Your task to perform on an android device: open chrome privacy settings Image 0: 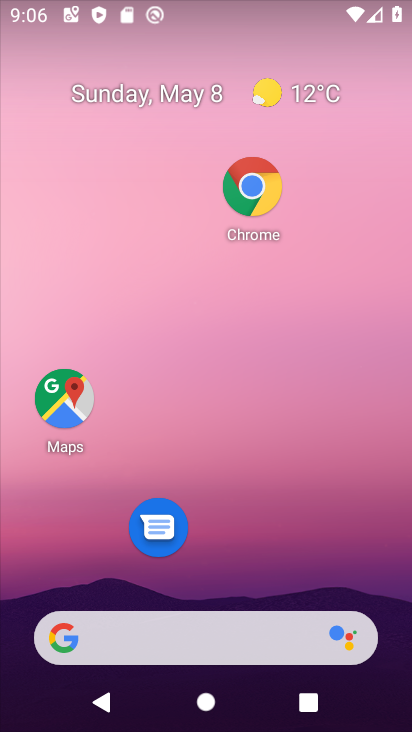
Step 0: drag from (249, 531) to (291, 221)
Your task to perform on an android device: open chrome privacy settings Image 1: 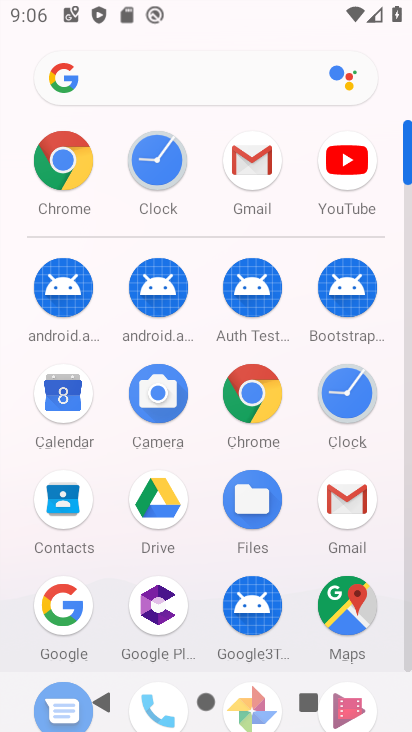
Step 1: click (239, 409)
Your task to perform on an android device: open chrome privacy settings Image 2: 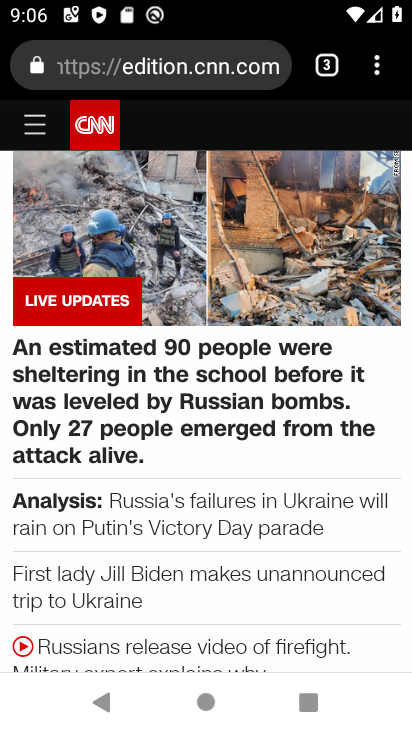
Step 2: click (361, 65)
Your task to perform on an android device: open chrome privacy settings Image 3: 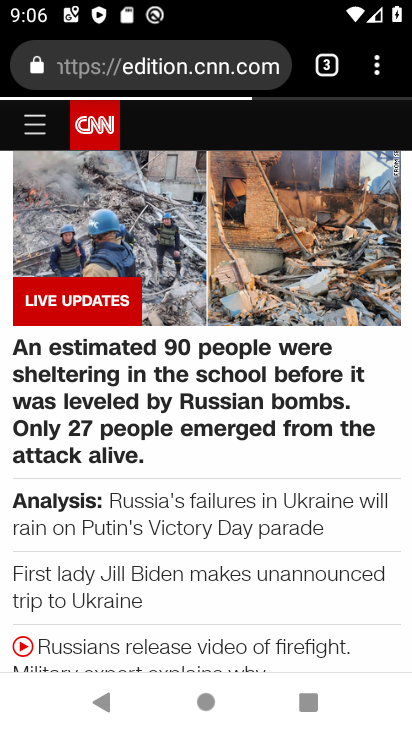
Step 3: click (369, 67)
Your task to perform on an android device: open chrome privacy settings Image 4: 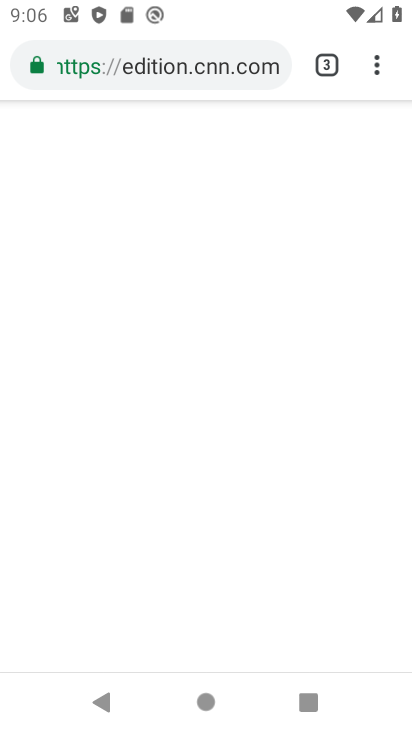
Step 4: click (360, 64)
Your task to perform on an android device: open chrome privacy settings Image 5: 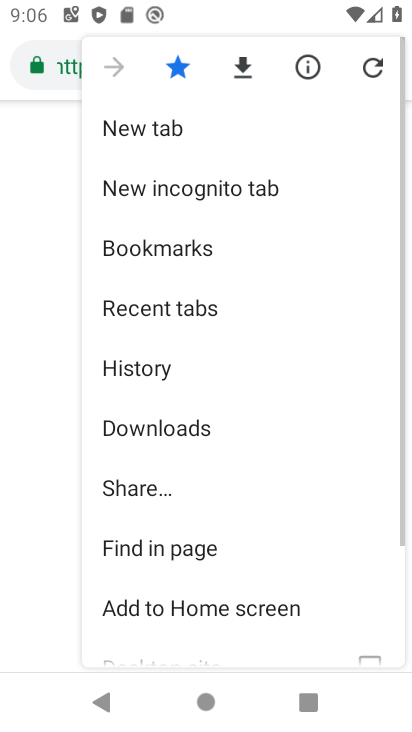
Step 5: drag from (182, 545) to (210, 174)
Your task to perform on an android device: open chrome privacy settings Image 6: 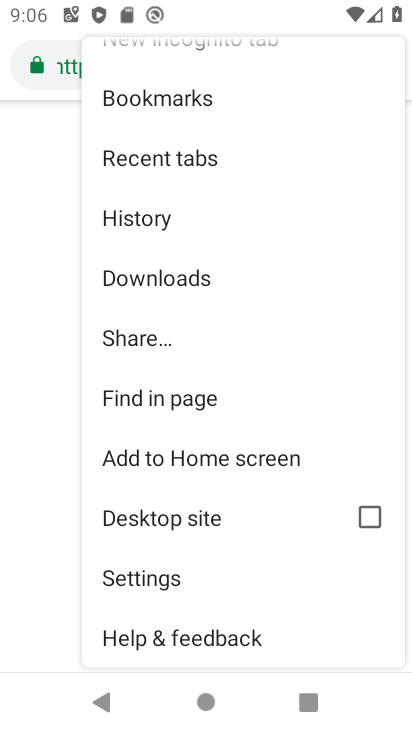
Step 6: click (158, 577)
Your task to perform on an android device: open chrome privacy settings Image 7: 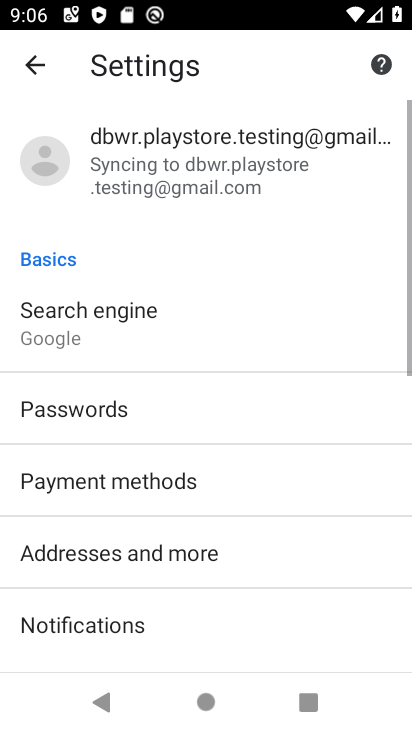
Step 7: drag from (152, 591) to (206, 226)
Your task to perform on an android device: open chrome privacy settings Image 8: 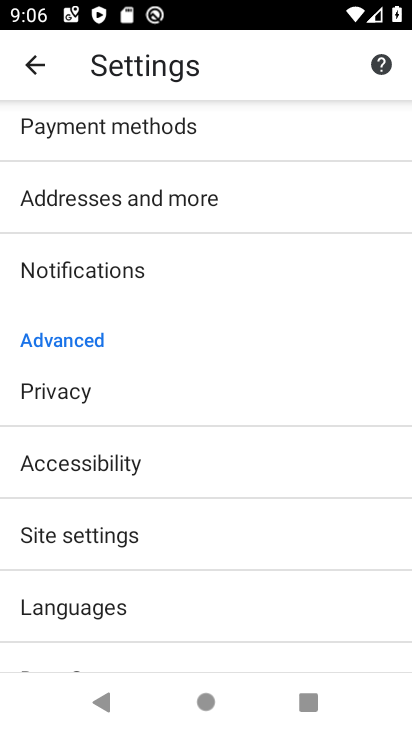
Step 8: click (90, 394)
Your task to perform on an android device: open chrome privacy settings Image 9: 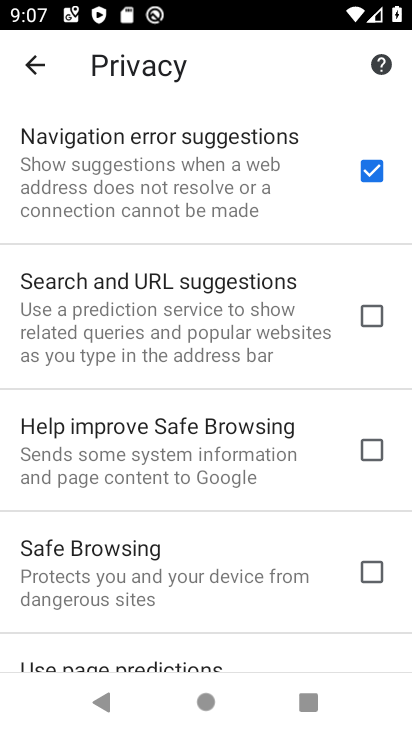
Step 9: task complete